Your task to perform on an android device: Open calendar and show me the third week of next month Image 0: 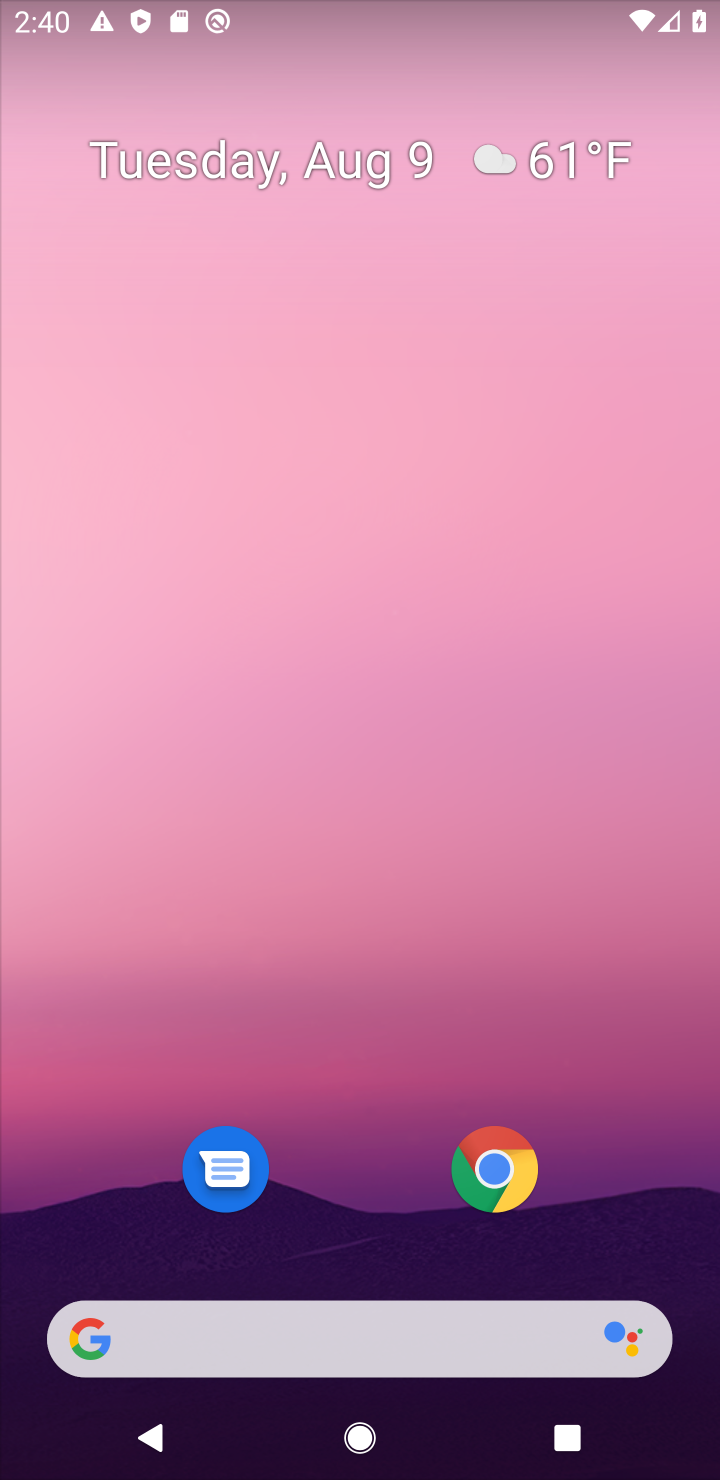
Step 0: drag from (402, 1125) to (306, 474)
Your task to perform on an android device: Open calendar and show me the third week of next month Image 1: 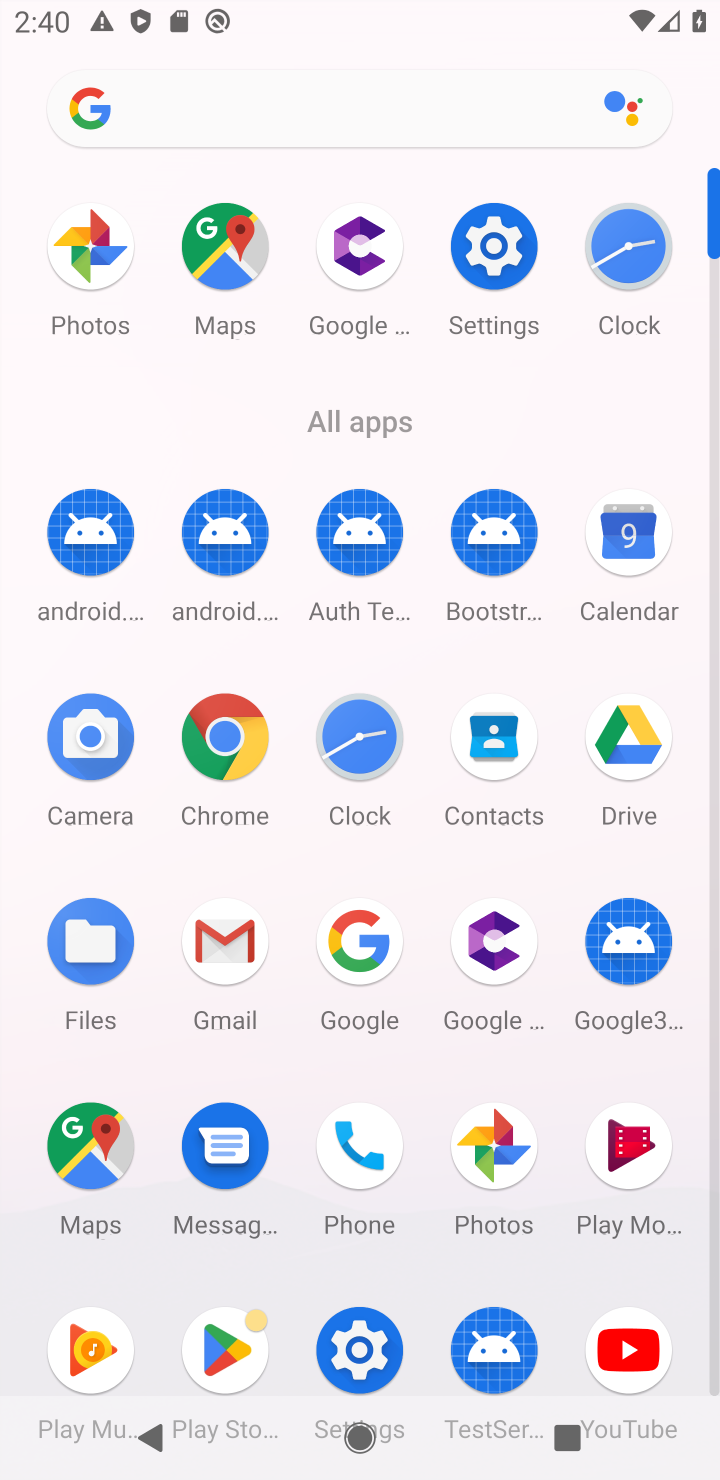
Step 1: click (614, 519)
Your task to perform on an android device: Open calendar and show me the third week of next month Image 2: 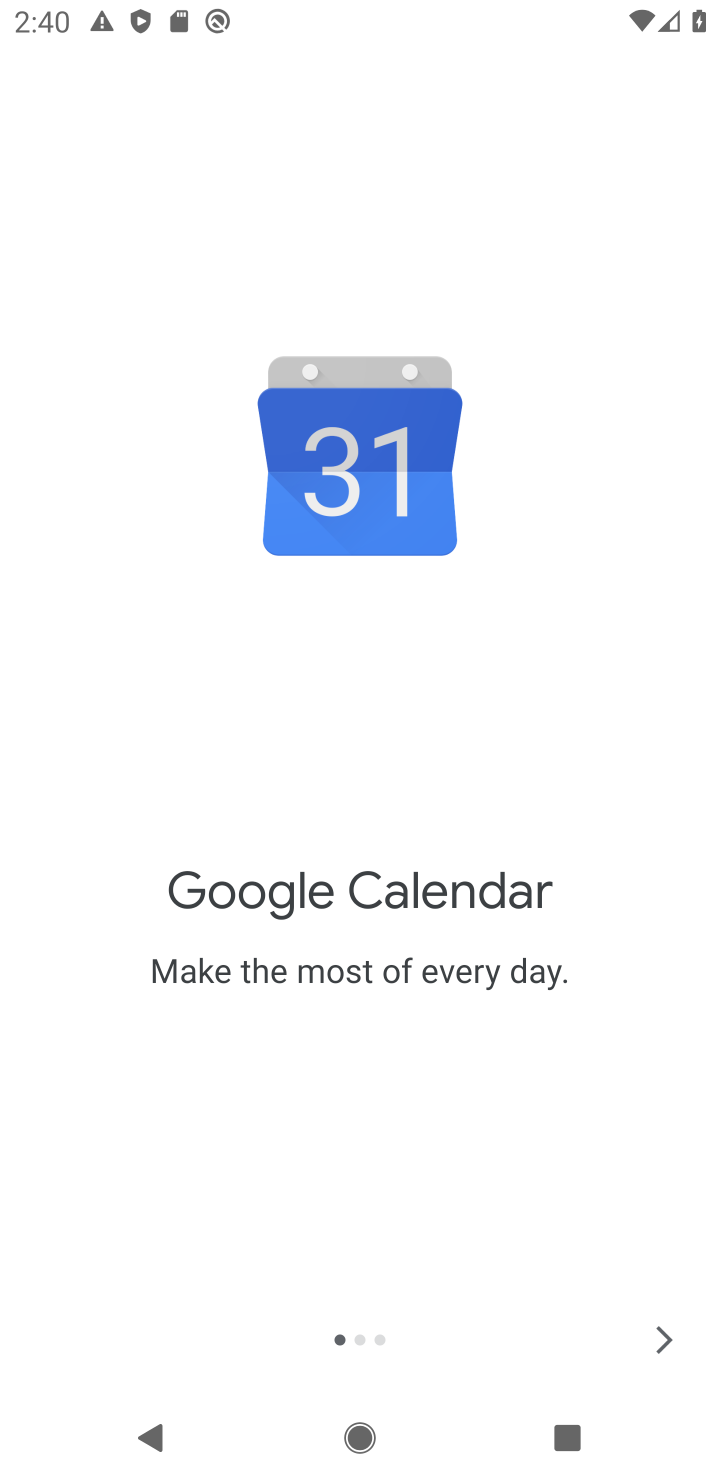
Step 2: click (661, 1350)
Your task to perform on an android device: Open calendar and show me the third week of next month Image 3: 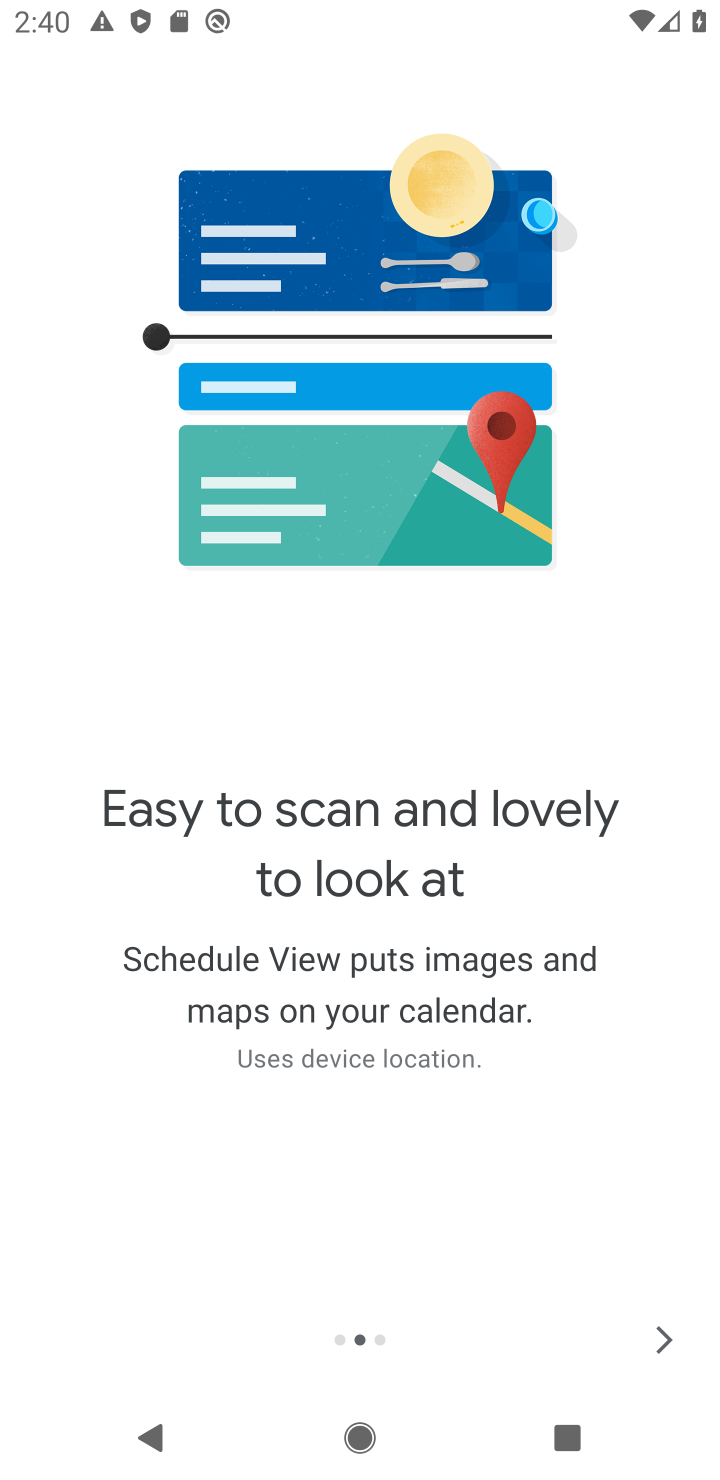
Step 3: click (661, 1350)
Your task to perform on an android device: Open calendar and show me the third week of next month Image 4: 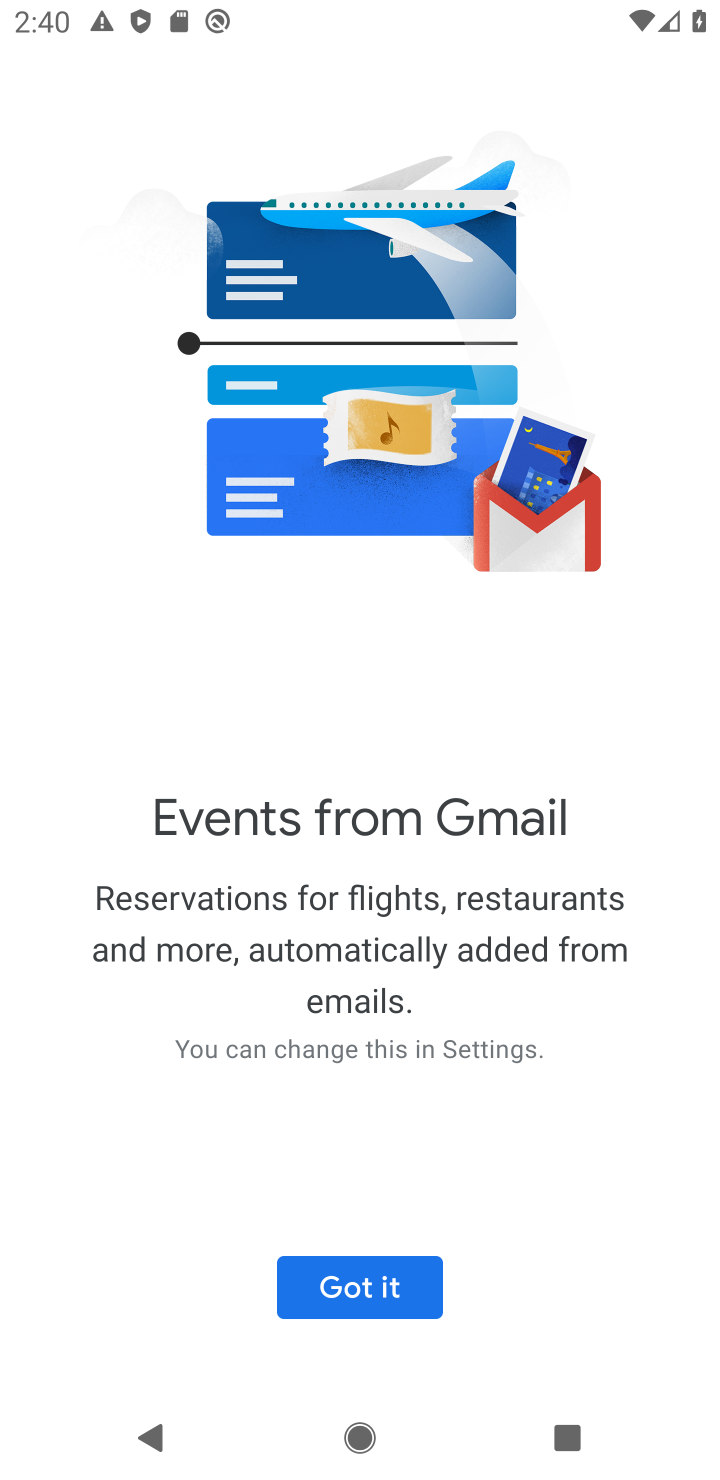
Step 4: click (406, 1278)
Your task to perform on an android device: Open calendar and show me the third week of next month Image 5: 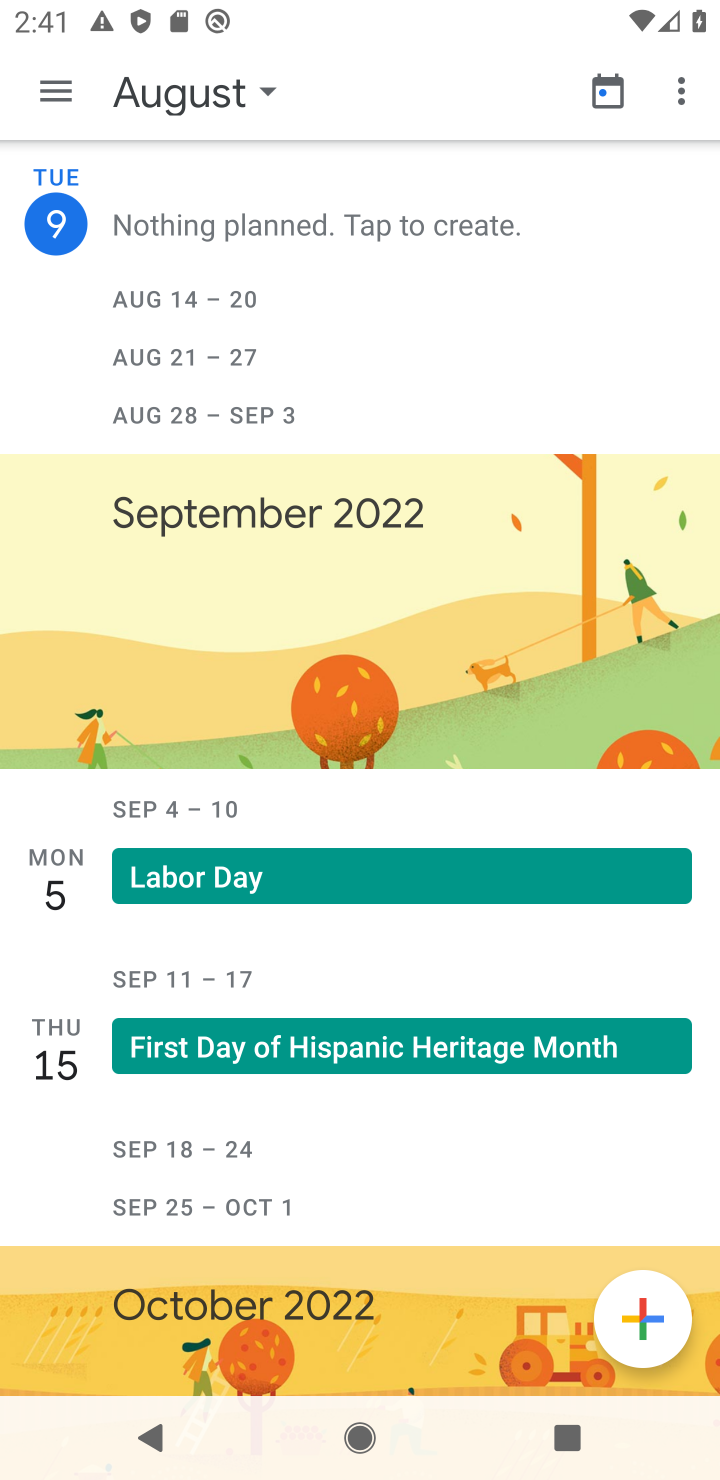
Step 5: click (152, 110)
Your task to perform on an android device: Open calendar and show me the third week of next month Image 6: 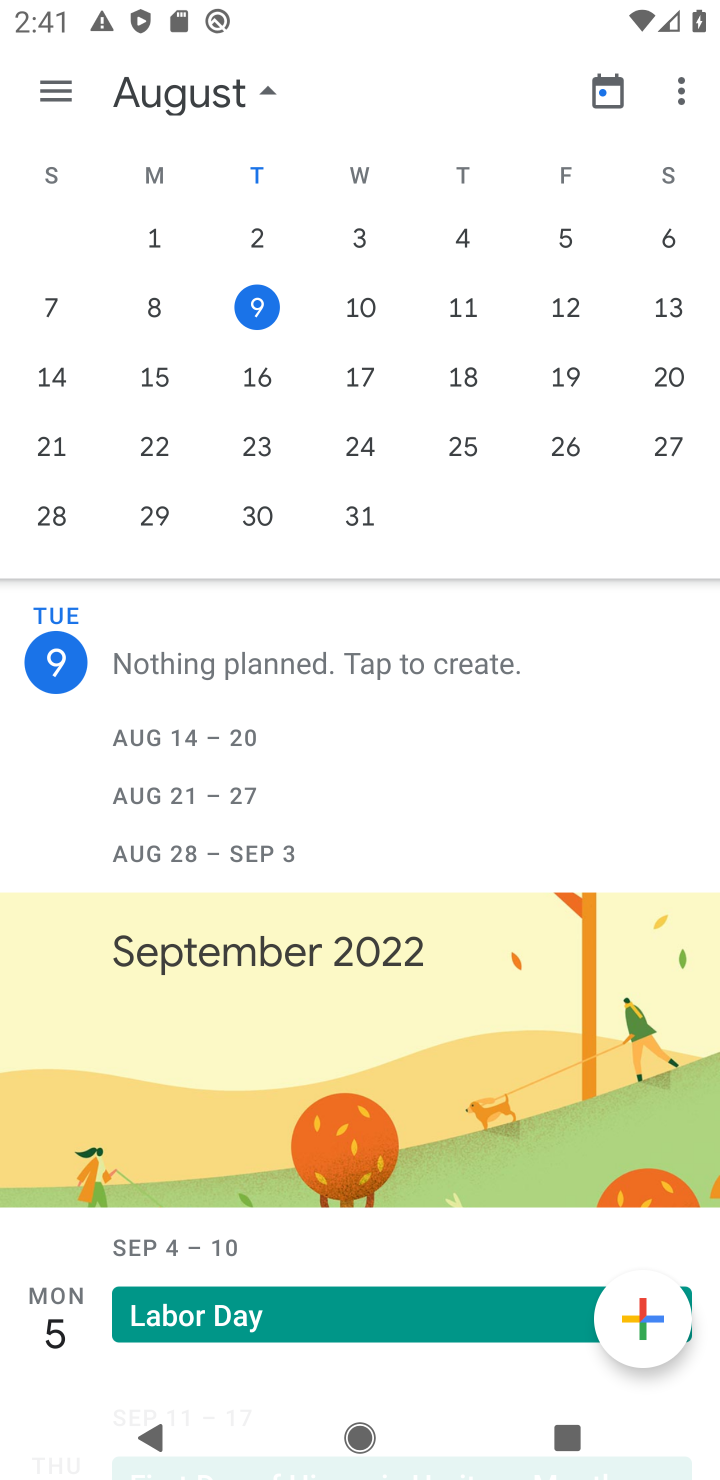
Step 6: drag from (528, 439) to (4, 353)
Your task to perform on an android device: Open calendar and show me the third week of next month Image 7: 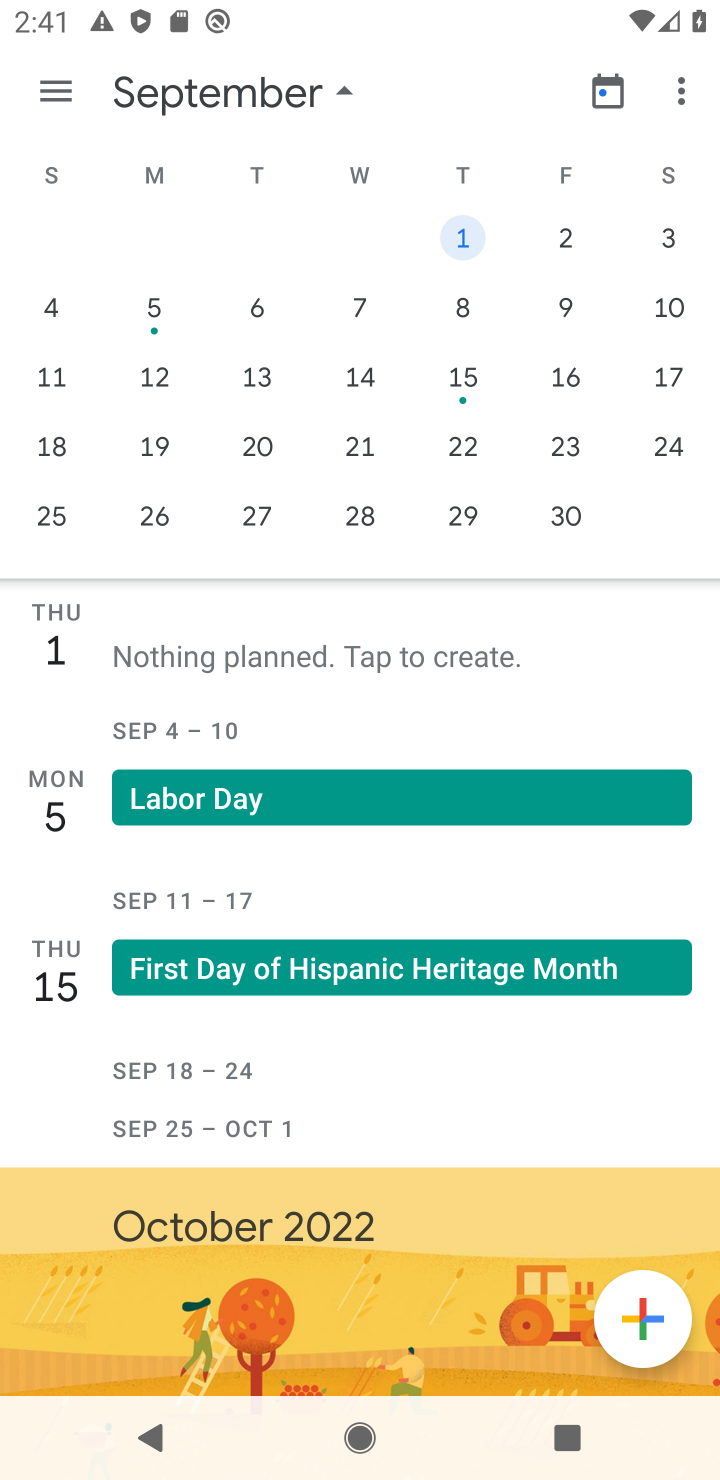
Step 7: click (254, 441)
Your task to perform on an android device: Open calendar and show me the third week of next month Image 8: 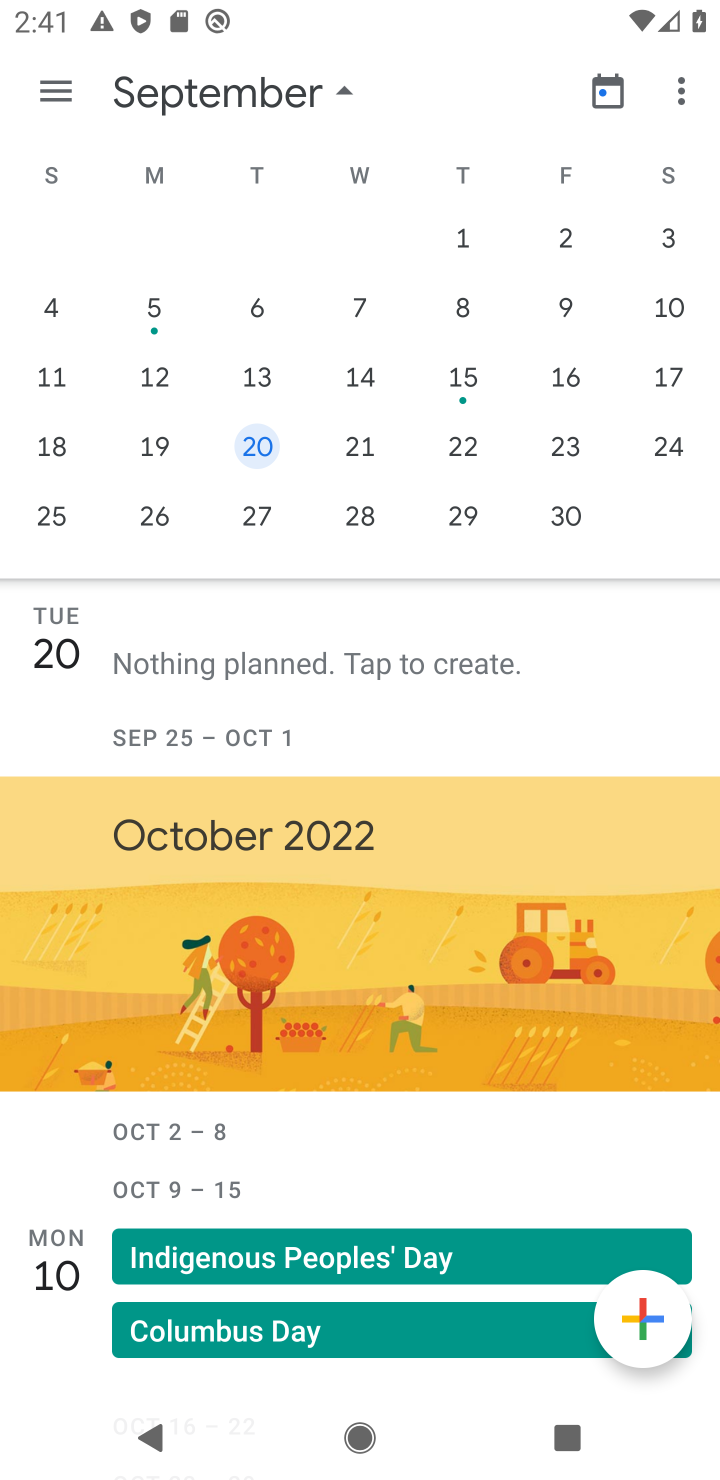
Step 8: click (42, 96)
Your task to perform on an android device: Open calendar and show me the third week of next month Image 9: 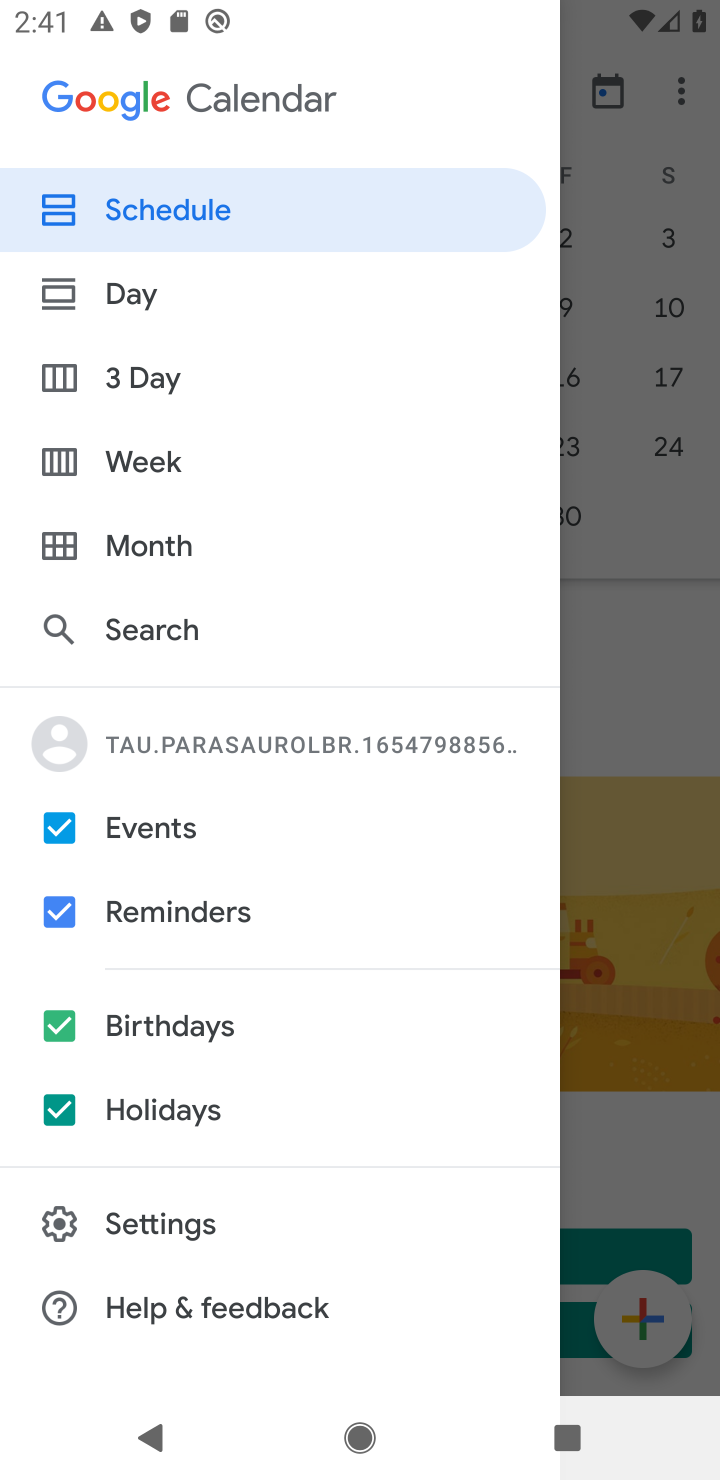
Step 9: click (192, 460)
Your task to perform on an android device: Open calendar and show me the third week of next month Image 10: 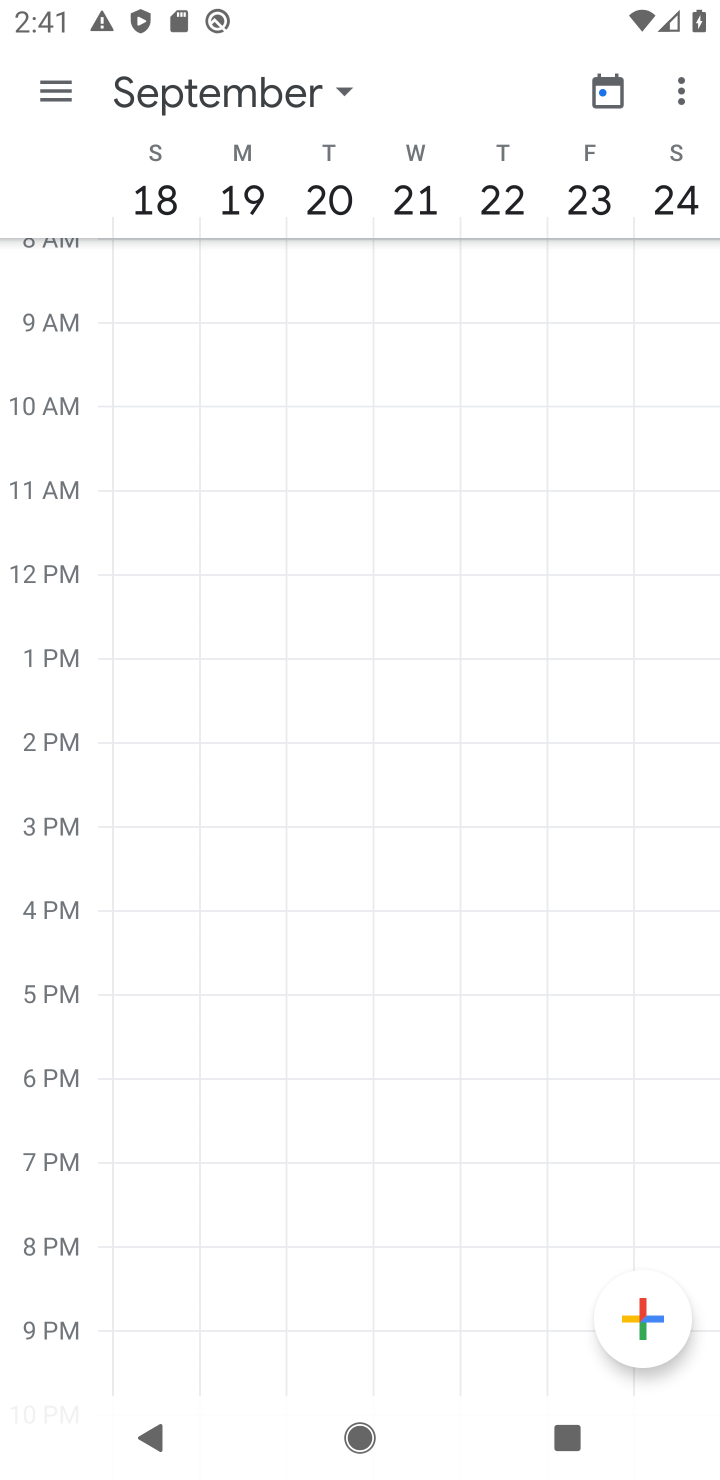
Step 10: task complete